Your task to perform on an android device: see tabs open on other devices in the chrome app Image 0: 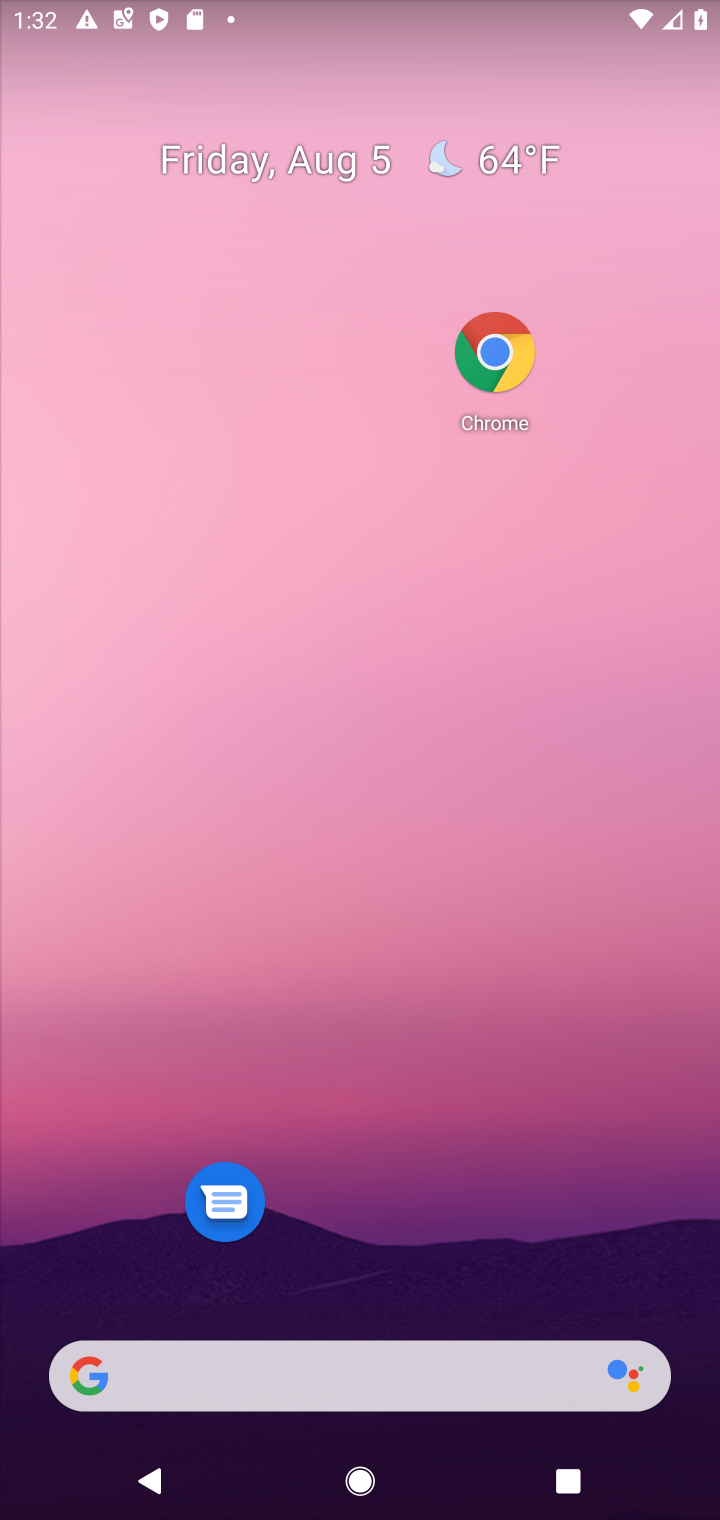
Step 0: drag from (399, 695) to (302, 57)
Your task to perform on an android device: see tabs open on other devices in the chrome app Image 1: 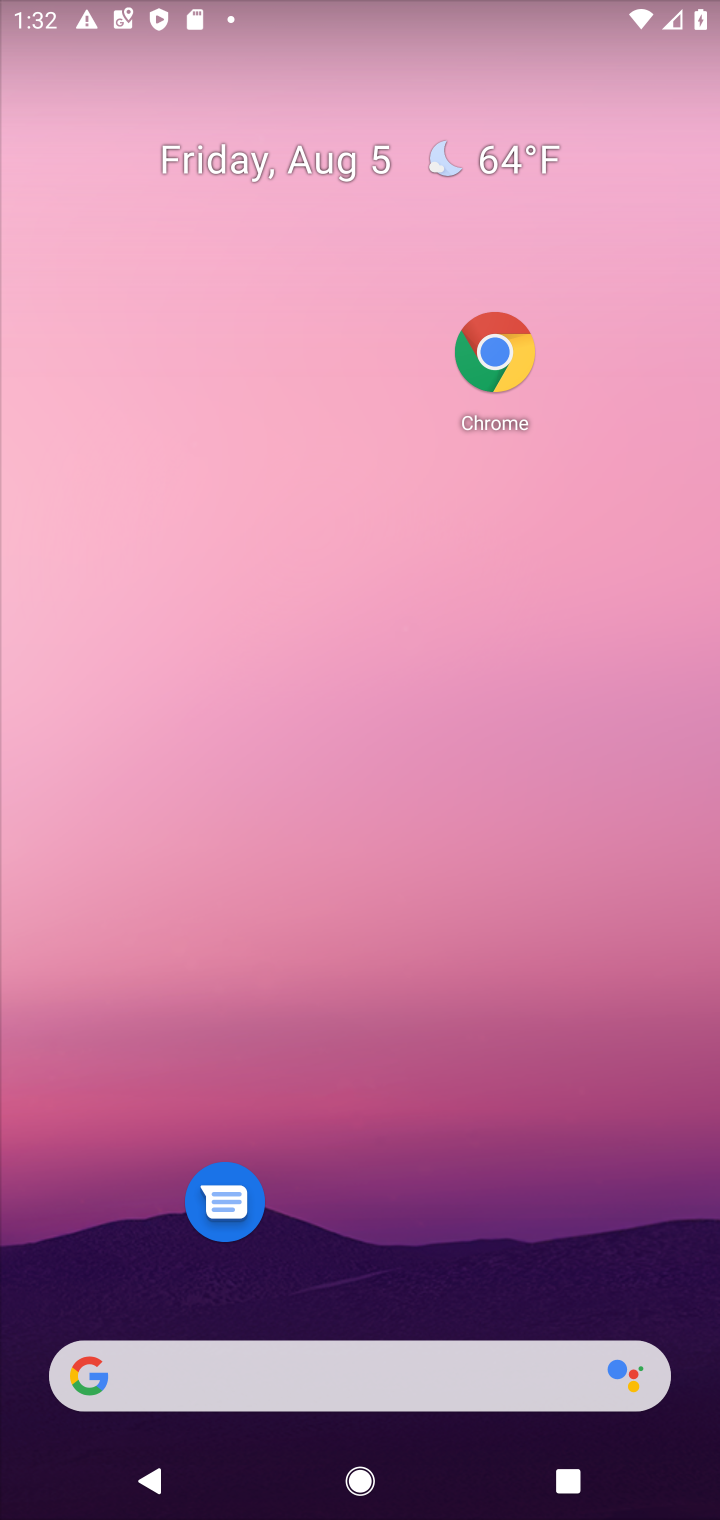
Step 1: drag from (484, 1224) to (390, 250)
Your task to perform on an android device: see tabs open on other devices in the chrome app Image 2: 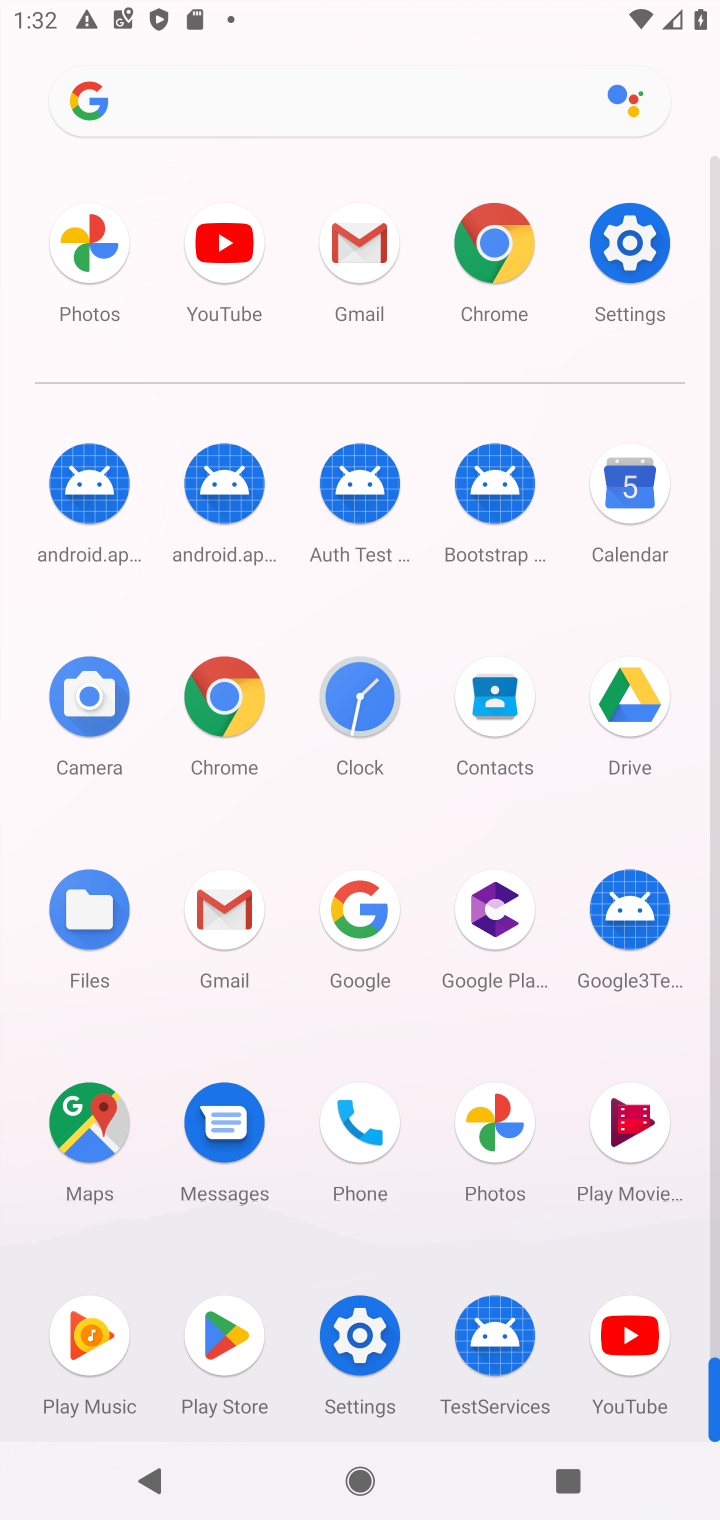
Step 2: click (219, 696)
Your task to perform on an android device: see tabs open on other devices in the chrome app Image 3: 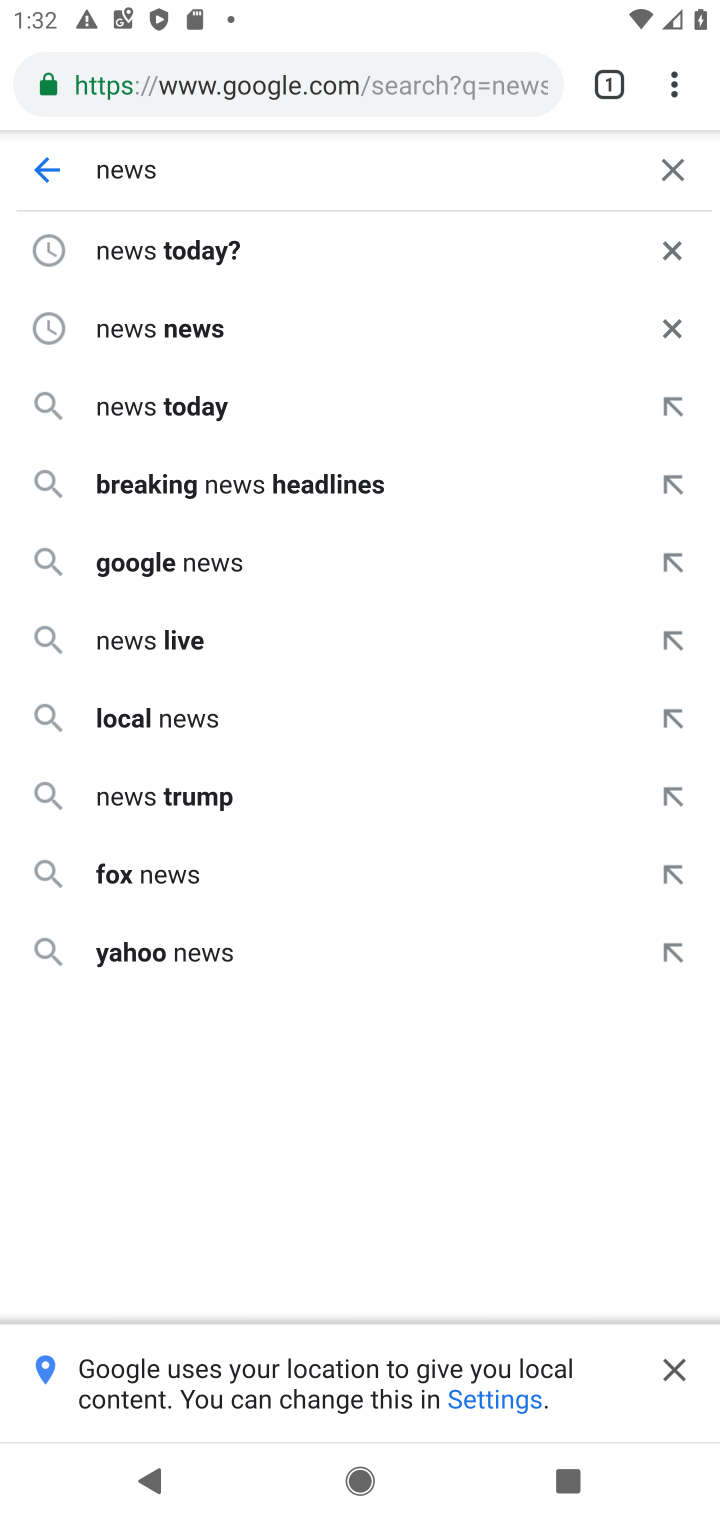
Step 3: task complete